Your task to perform on an android device: find photos in the google photos app Image 0: 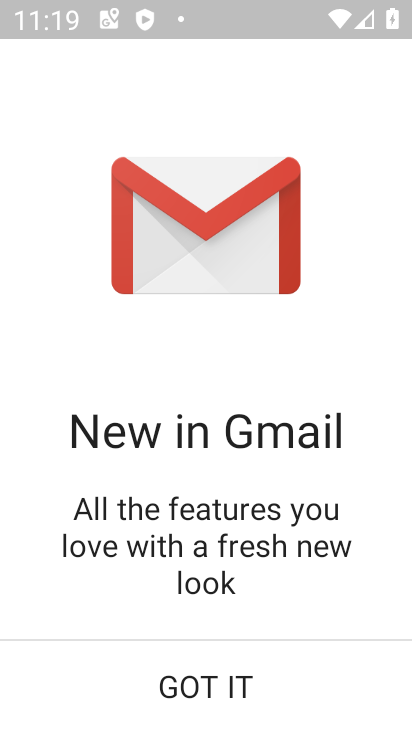
Step 0: press home button
Your task to perform on an android device: find photos in the google photos app Image 1: 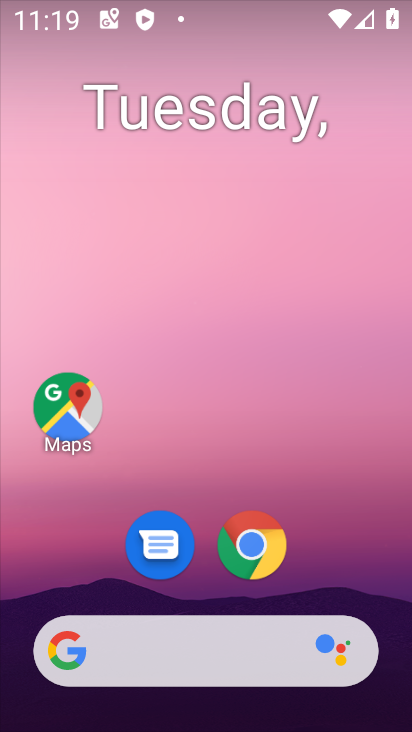
Step 1: drag from (345, 537) to (316, 99)
Your task to perform on an android device: find photos in the google photos app Image 2: 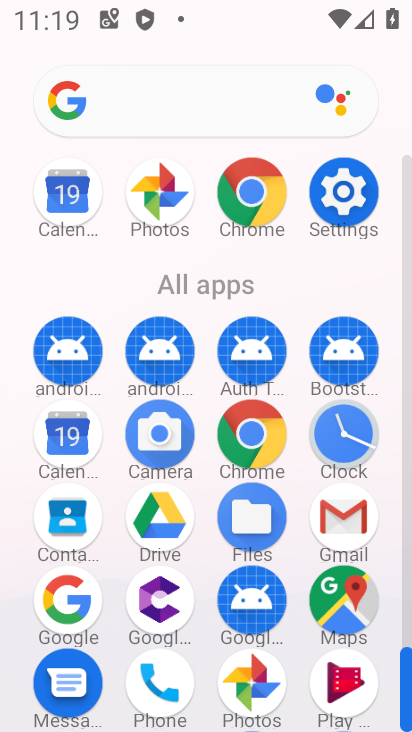
Step 2: click (169, 186)
Your task to perform on an android device: find photos in the google photos app Image 3: 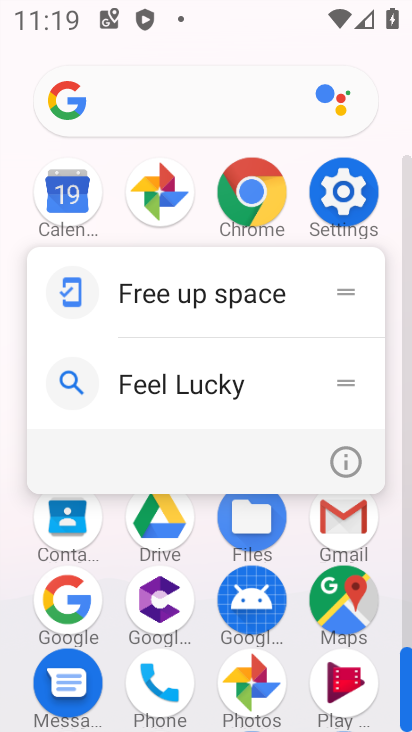
Step 3: click (169, 188)
Your task to perform on an android device: find photos in the google photos app Image 4: 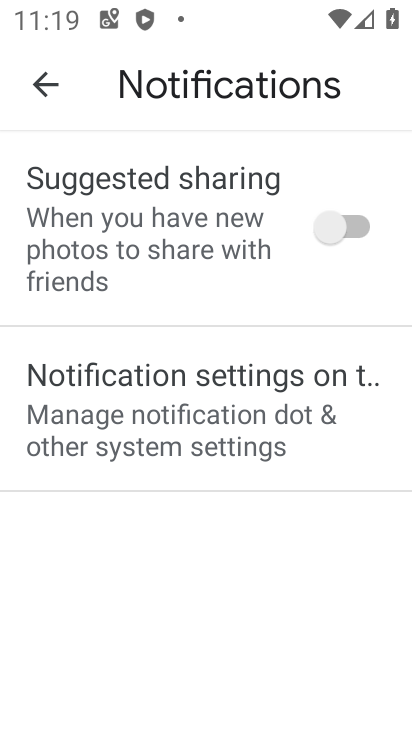
Step 4: click (54, 80)
Your task to perform on an android device: find photos in the google photos app Image 5: 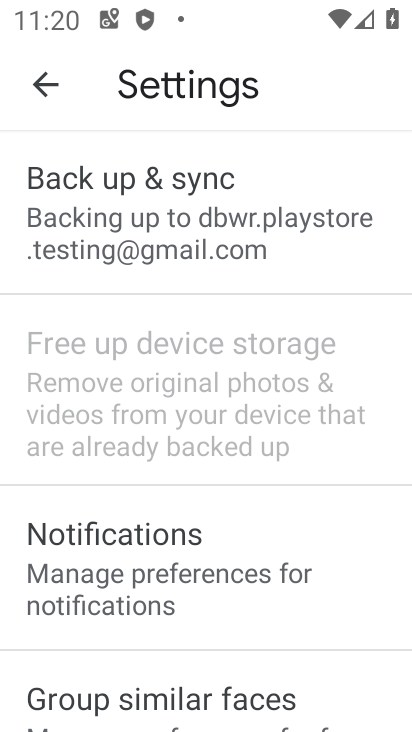
Step 5: click (54, 80)
Your task to perform on an android device: find photos in the google photos app Image 6: 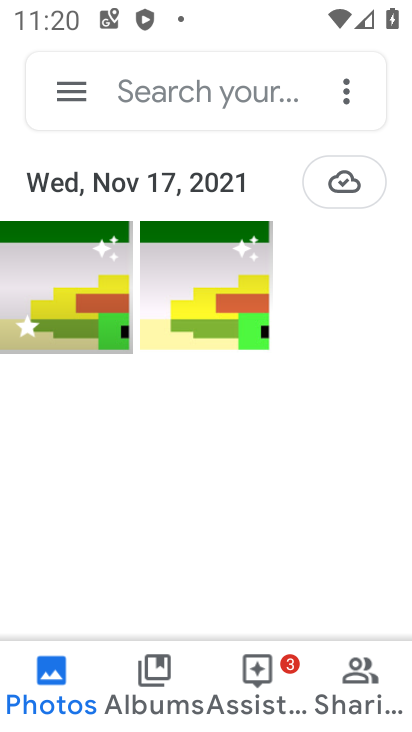
Step 6: click (50, 672)
Your task to perform on an android device: find photos in the google photos app Image 7: 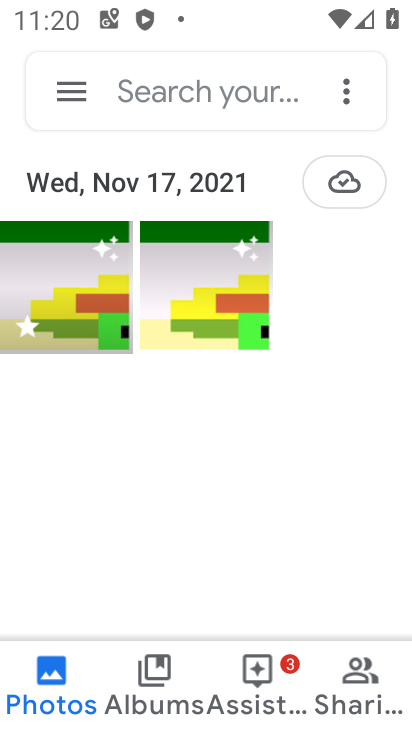
Step 7: click (88, 295)
Your task to perform on an android device: find photos in the google photos app Image 8: 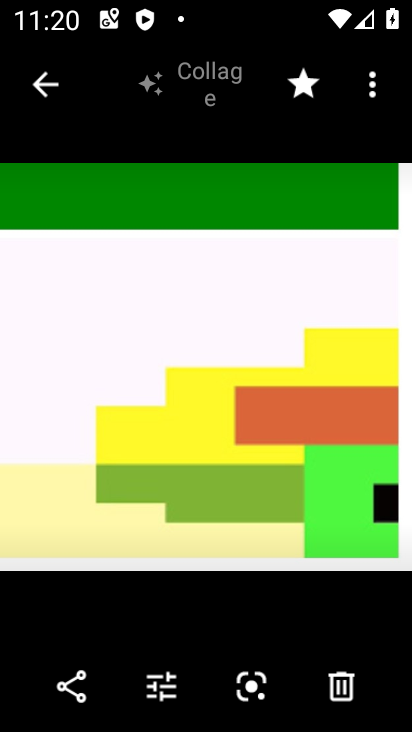
Step 8: task complete